Your task to perform on an android device: Go to settings Image 0: 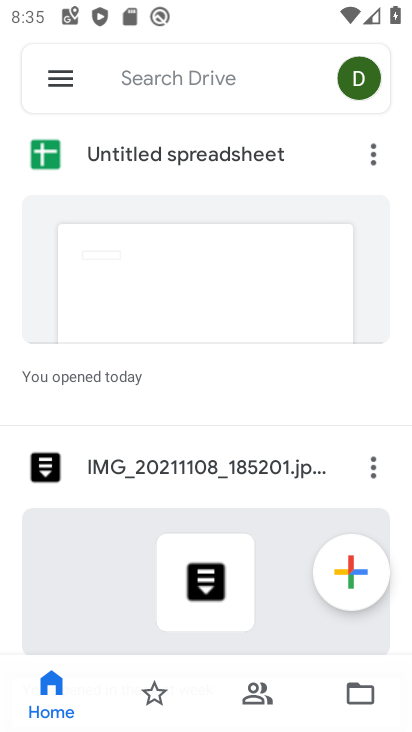
Step 0: press home button
Your task to perform on an android device: Go to settings Image 1: 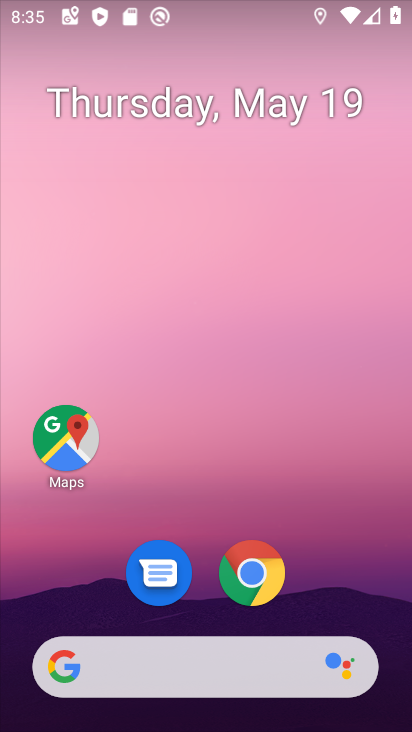
Step 1: drag from (313, 607) to (253, 2)
Your task to perform on an android device: Go to settings Image 2: 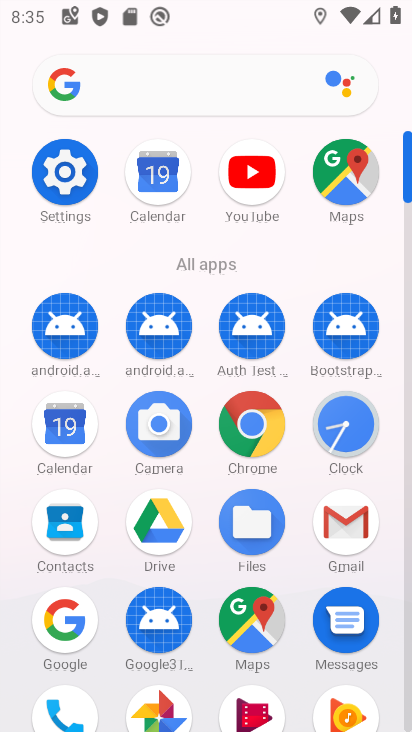
Step 2: click (53, 178)
Your task to perform on an android device: Go to settings Image 3: 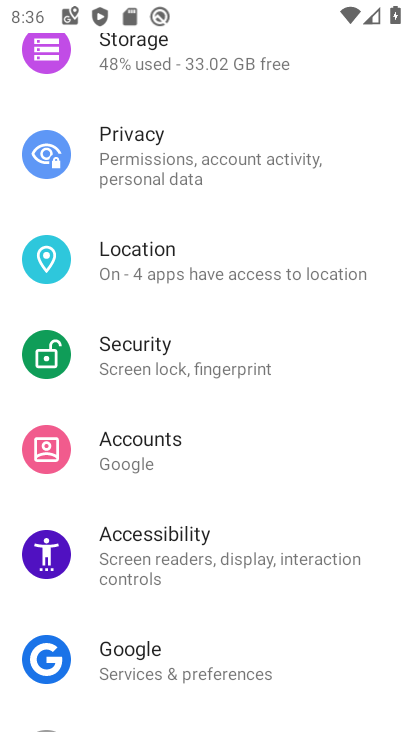
Step 3: task complete